Your task to perform on an android device: toggle translation in the chrome app Image 0: 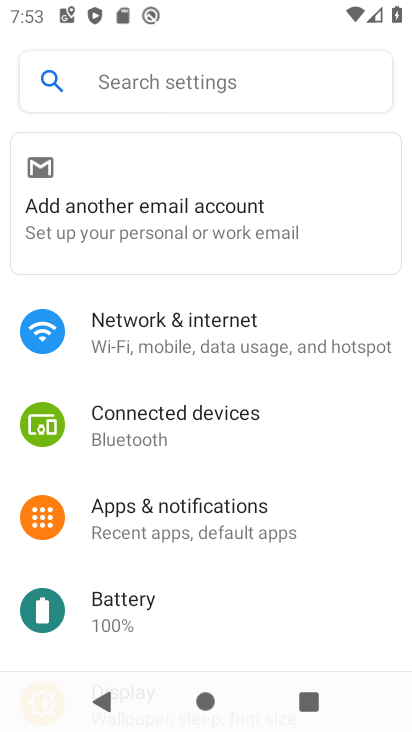
Step 0: press home button
Your task to perform on an android device: toggle translation in the chrome app Image 1: 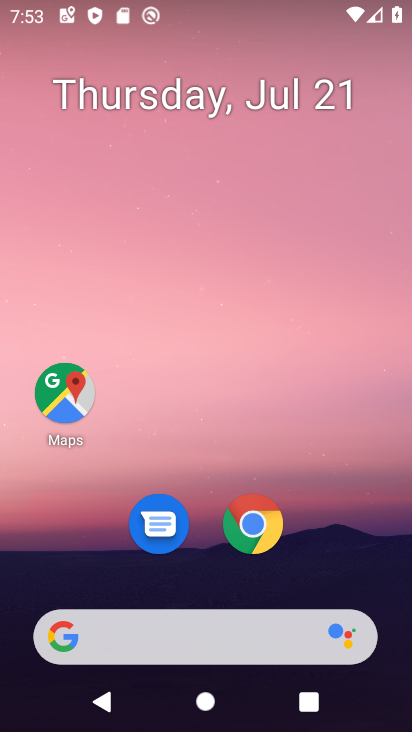
Step 1: click (253, 528)
Your task to perform on an android device: toggle translation in the chrome app Image 2: 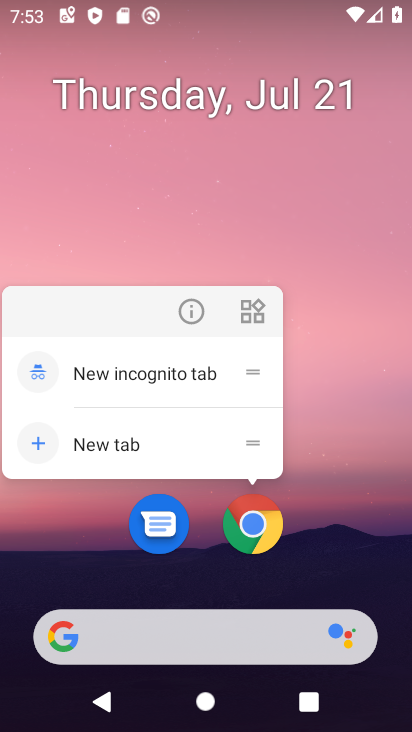
Step 2: click (260, 521)
Your task to perform on an android device: toggle translation in the chrome app Image 3: 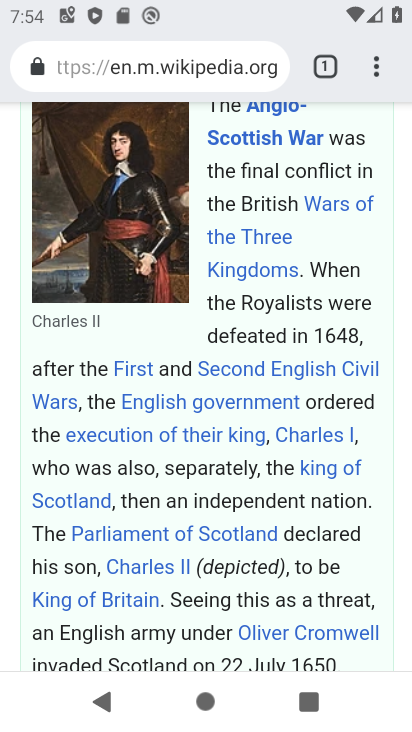
Step 3: drag from (377, 66) to (234, 518)
Your task to perform on an android device: toggle translation in the chrome app Image 4: 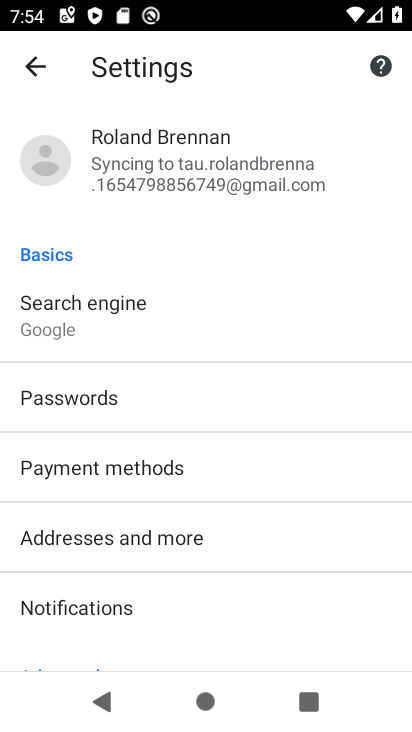
Step 4: drag from (217, 590) to (364, 205)
Your task to perform on an android device: toggle translation in the chrome app Image 5: 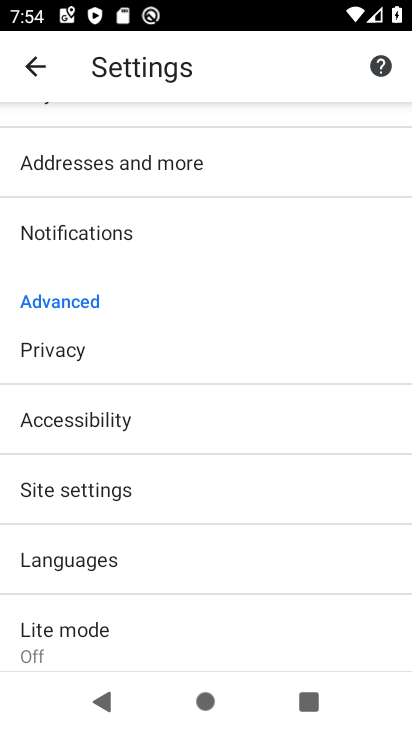
Step 5: click (85, 576)
Your task to perform on an android device: toggle translation in the chrome app Image 6: 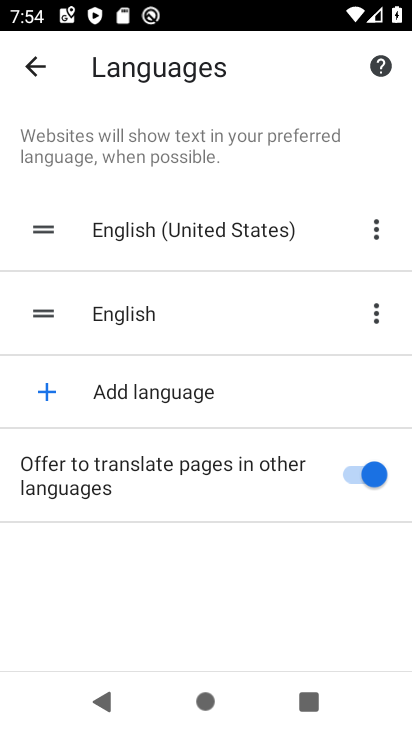
Step 6: click (347, 475)
Your task to perform on an android device: toggle translation in the chrome app Image 7: 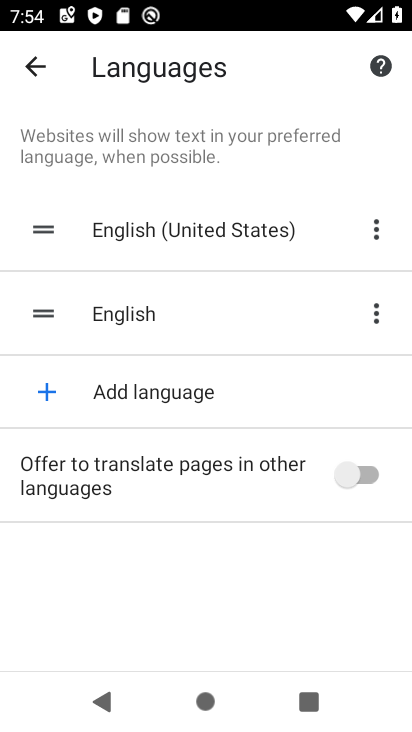
Step 7: task complete